Your task to perform on an android device: delete browsing data in the chrome app Image 0: 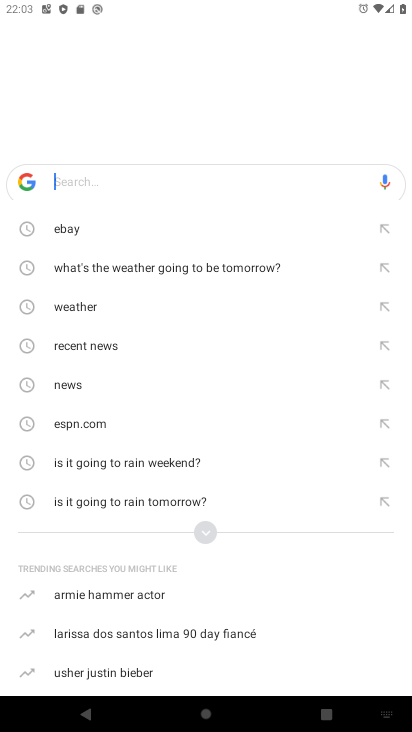
Step 0: press home button
Your task to perform on an android device: delete browsing data in the chrome app Image 1: 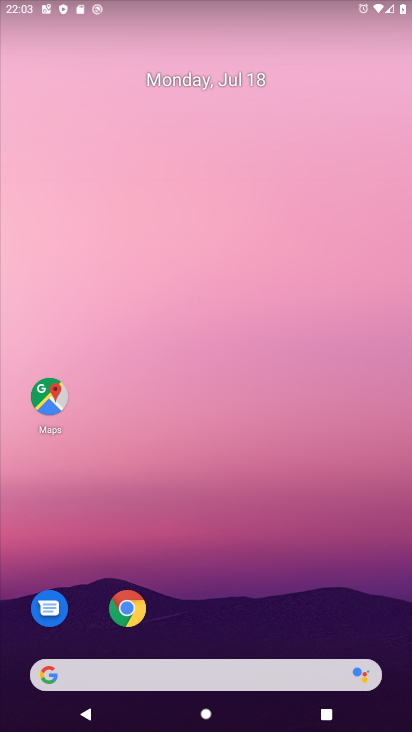
Step 1: click (130, 608)
Your task to perform on an android device: delete browsing data in the chrome app Image 2: 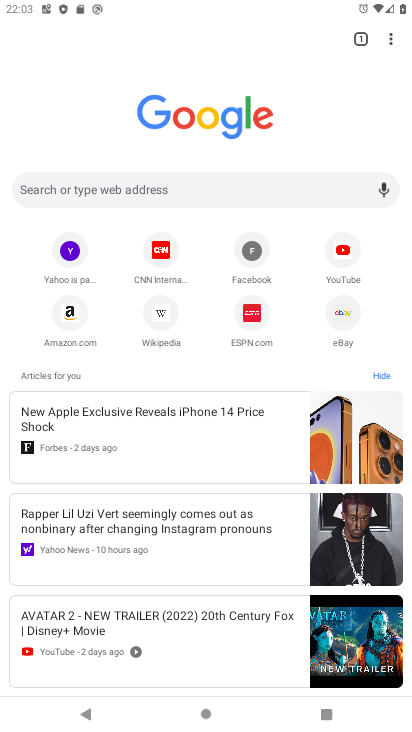
Step 2: click (390, 39)
Your task to perform on an android device: delete browsing data in the chrome app Image 3: 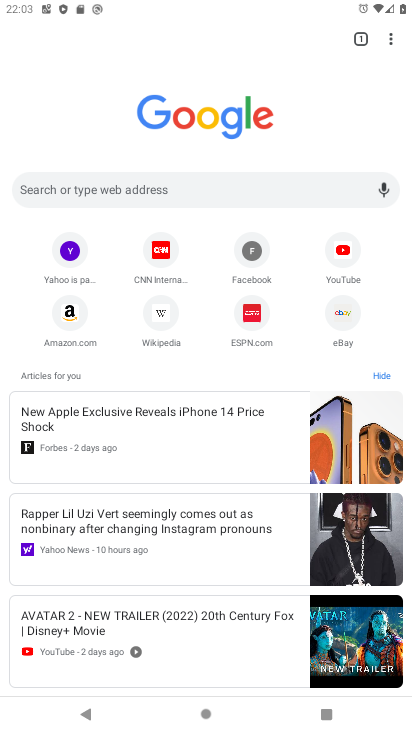
Step 3: click (389, 41)
Your task to perform on an android device: delete browsing data in the chrome app Image 4: 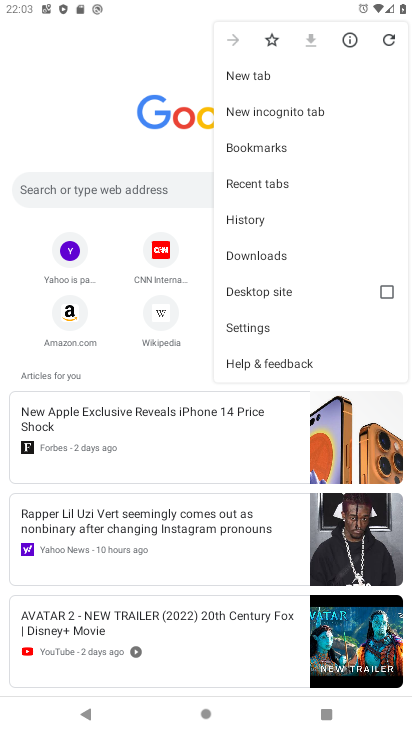
Step 4: click (250, 323)
Your task to perform on an android device: delete browsing data in the chrome app Image 5: 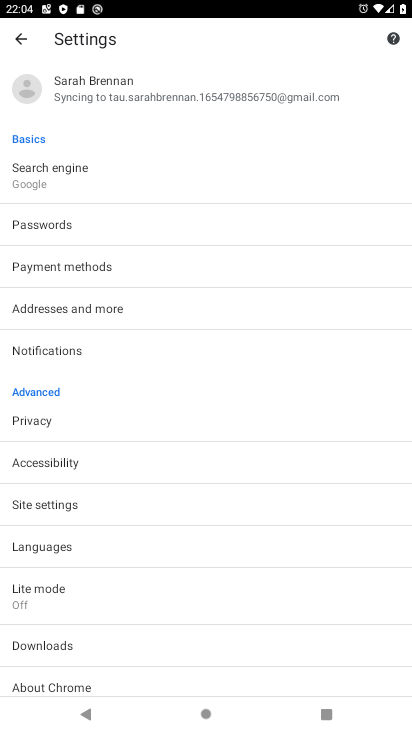
Step 5: click (15, 36)
Your task to perform on an android device: delete browsing data in the chrome app Image 6: 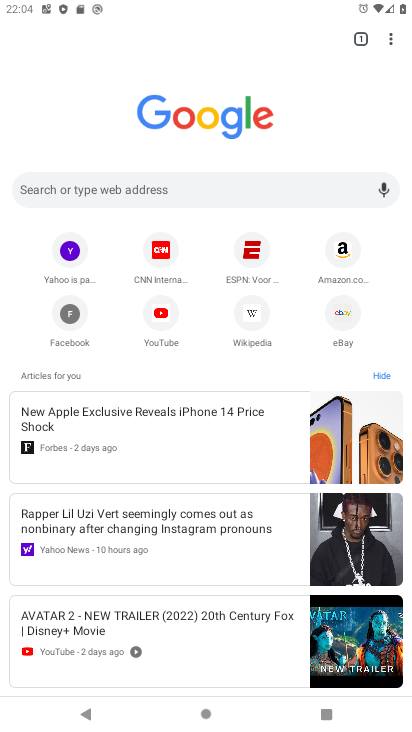
Step 6: click (391, 37)
Your task to perform on an android device: delete browsing data in the chrome app Image 7: 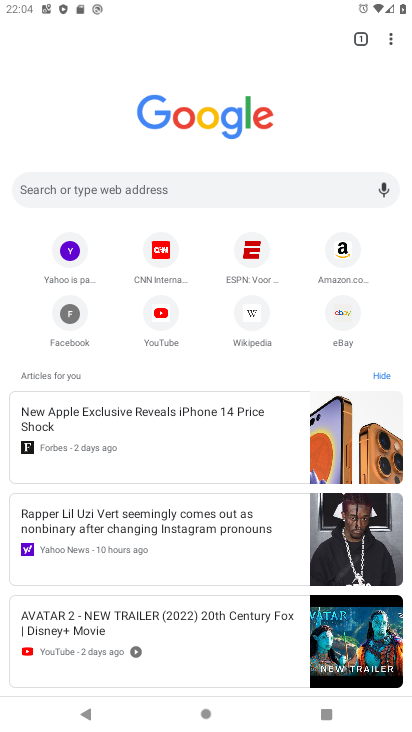
Step 7: click (391, 37)
Your task to perform on an android device: delete browsing data in the chrome app Image 8: 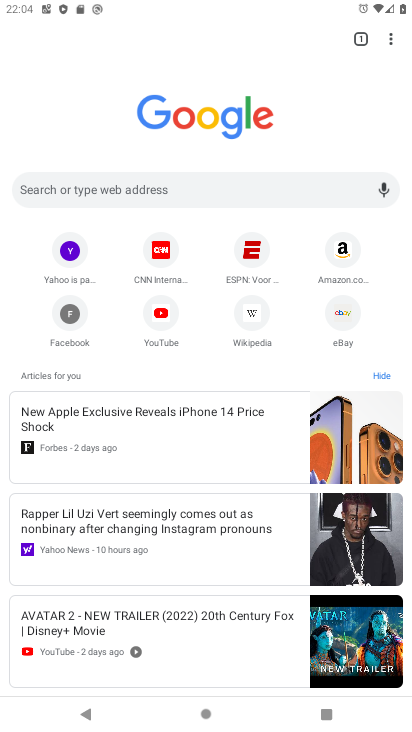
Step 8: click (389, 42)
Your task to perform on an android device: delete browsing data in the chrome app Image 9: 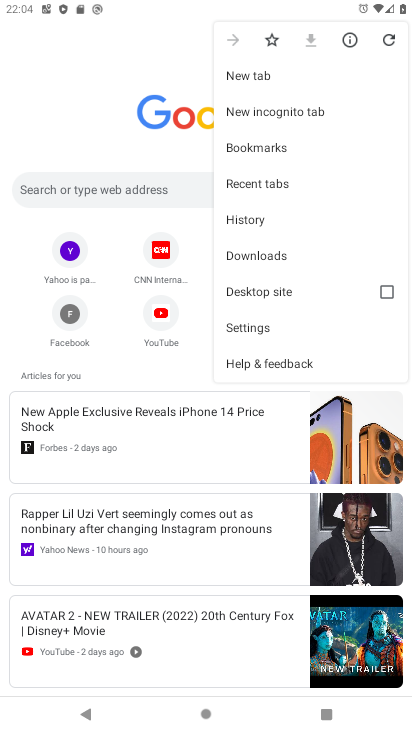
Step 9: click (237, 211)
Your task to perform on an android device: delete browsing data in the chrome app Image 10: 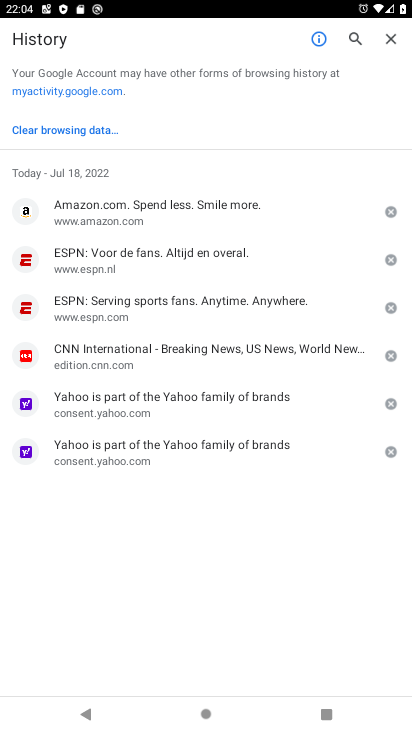
Step 10: click (71, 133)
Your task to perform on an android device: delete browsing data in the chrome app Image 11: 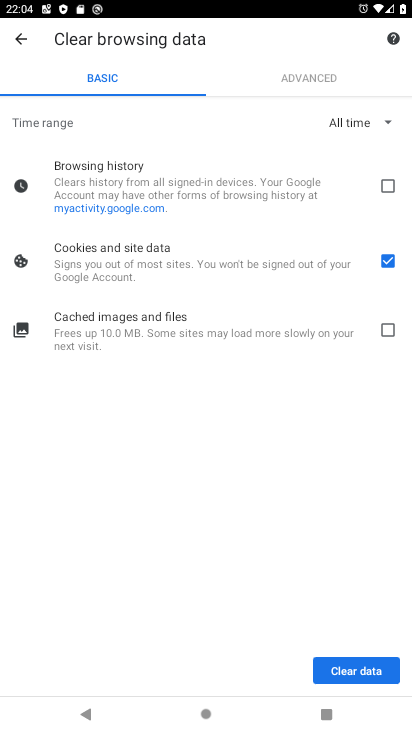
Step 11: click (371, 190)
Your task to perform on an android device: delete browsing data in the chrome app Image 12: 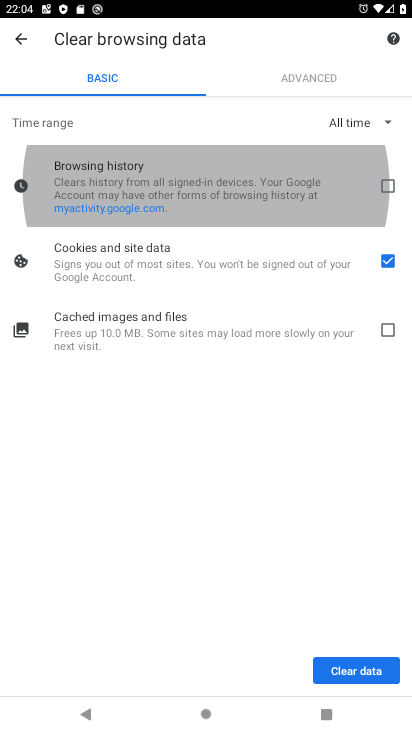
Step 12: click (381, 184)
Your task to perform on an android device: delete browsing data in the chrome app Image 13: 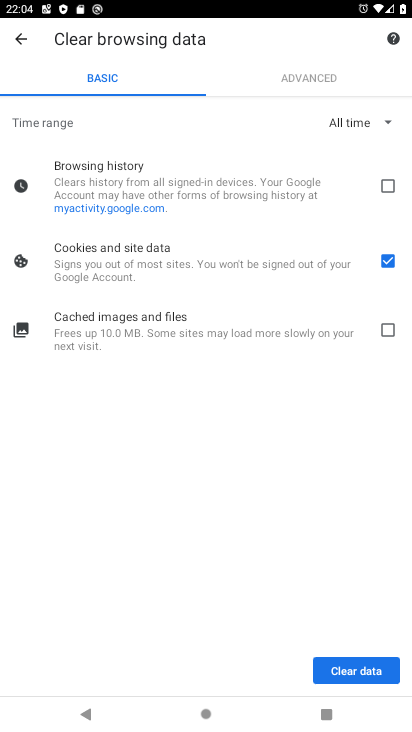
Step 13: click (391, 249)
Your task to perform on an android device: delete browsing data in the chrome app Image 14: 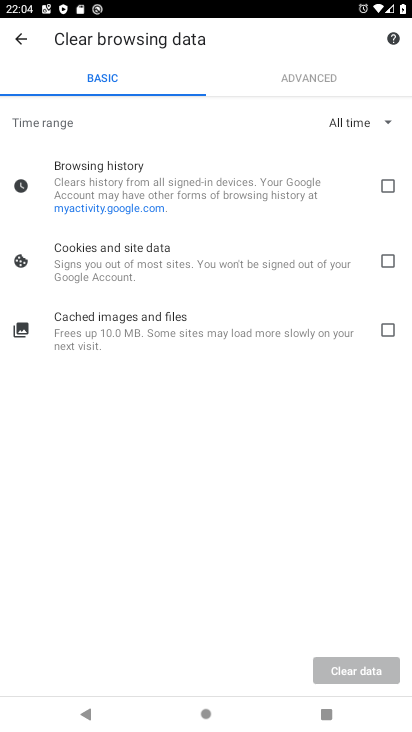
Step 14: click (386, 179)
Your task to perform on an android device: delete browsing data in the chrome app Image 15: 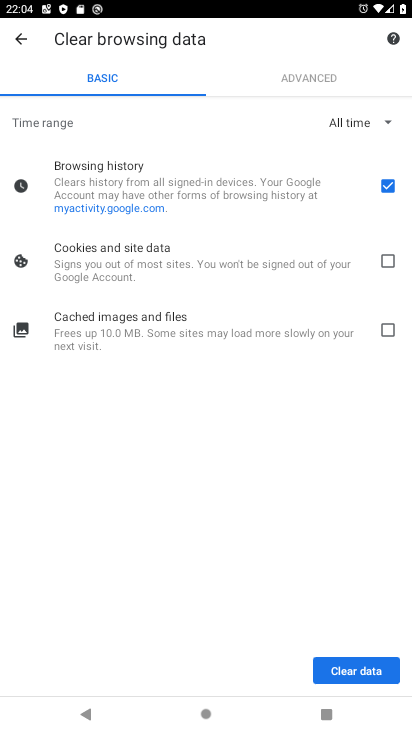
Step 15: click (347, 666)
Your task to perform on an android device: delete browsing data in the chrome app Image 16: 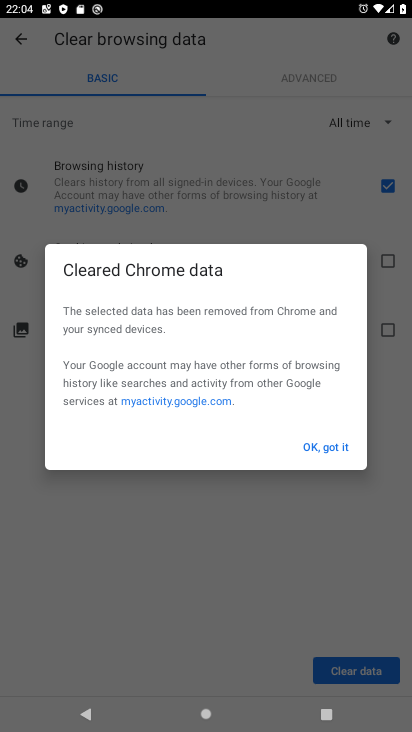
Step 16: click (326, 433)
Your task to perform on an android device: delete browsing data in the chrome app Image 17: 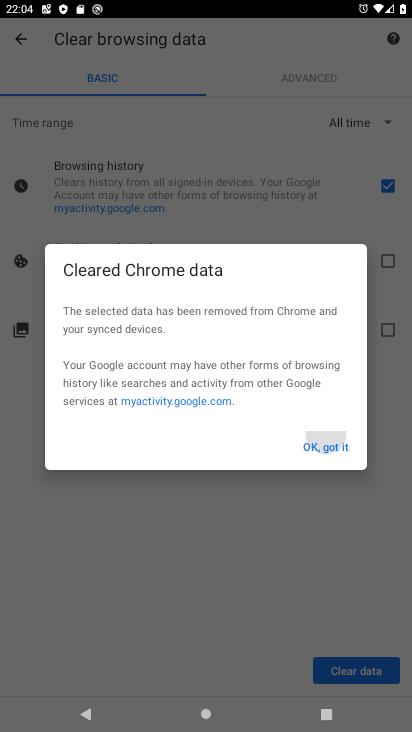
Step 17: click (326, 445)
Your task to perform on an android device: delete browsing data in the chrome app Image 18: 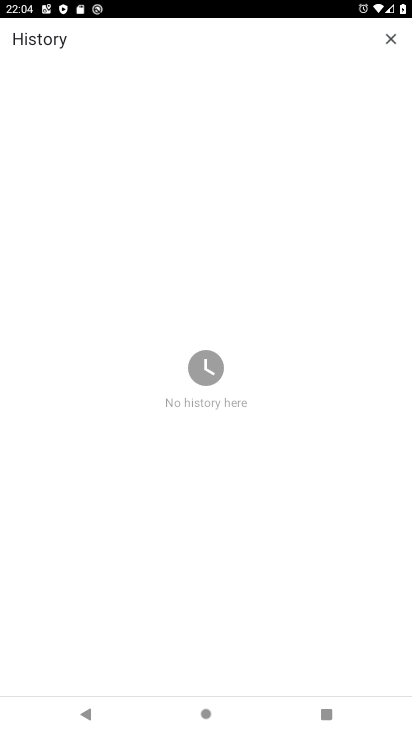
Step 18: task complete